Your task to perform on an android device: Open Android settings Image 0: 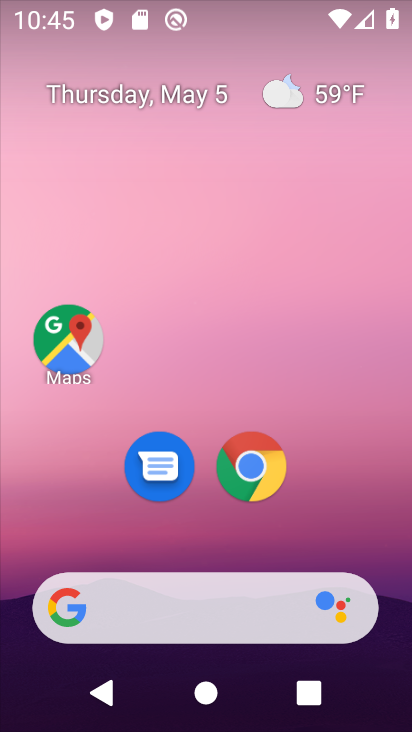
Step 0: drag from (331, 488) to (265, 13)
Your task to perform on an android device: Open Android settings Image 1: 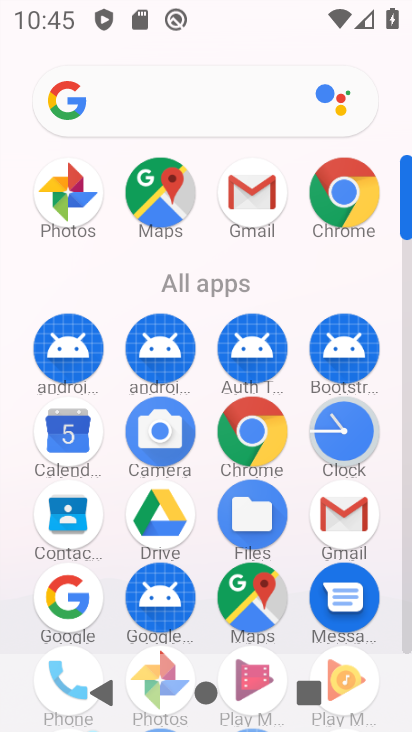
Step 1: drag from (195, 294) to (190, 22)
Your task to perform on an android device: Open Android settings Image 2: 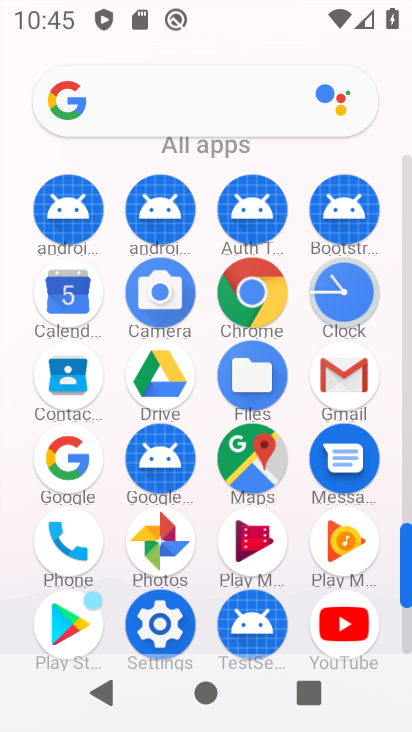
Step 2: click (155, 619)
Your task to perform on an android device: Open Android settings Image 3: 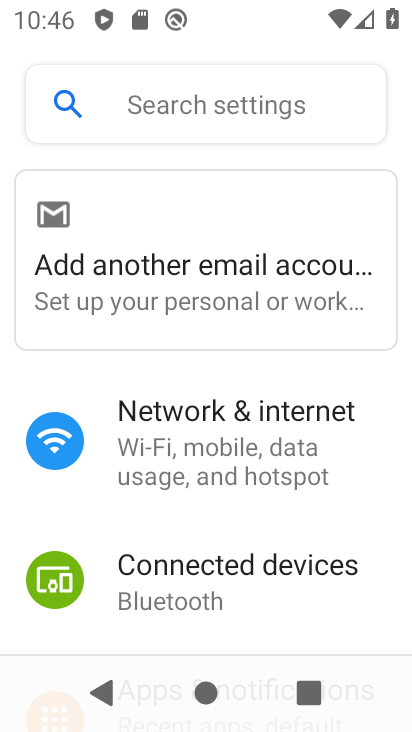
Step 3: task complete